Your task to perform on an android device: Check out the new nike air max 2020. Image 0: 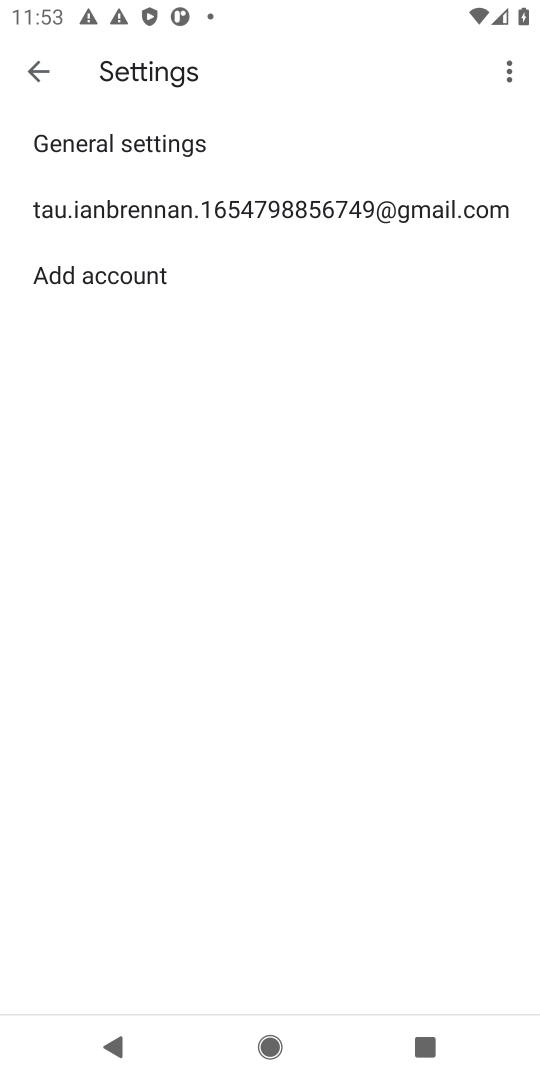
Step 0: press home button
Your task to perform on an android device: Check out the new nike air max 2020. Image 1: 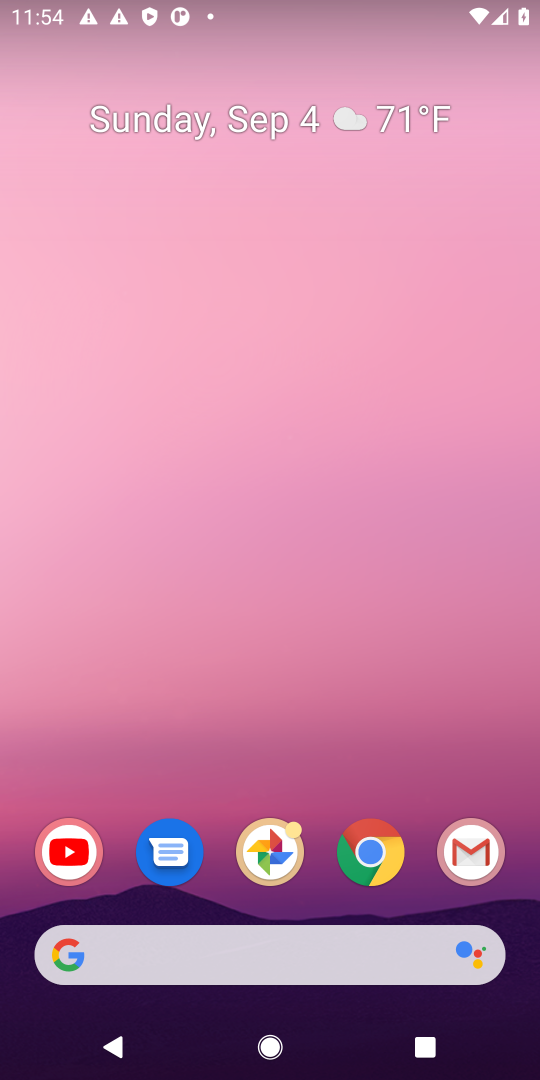
Step 1: click (359, 854)
Your task to perform on an android device: Check out the new nike air max 2020. Image 2: 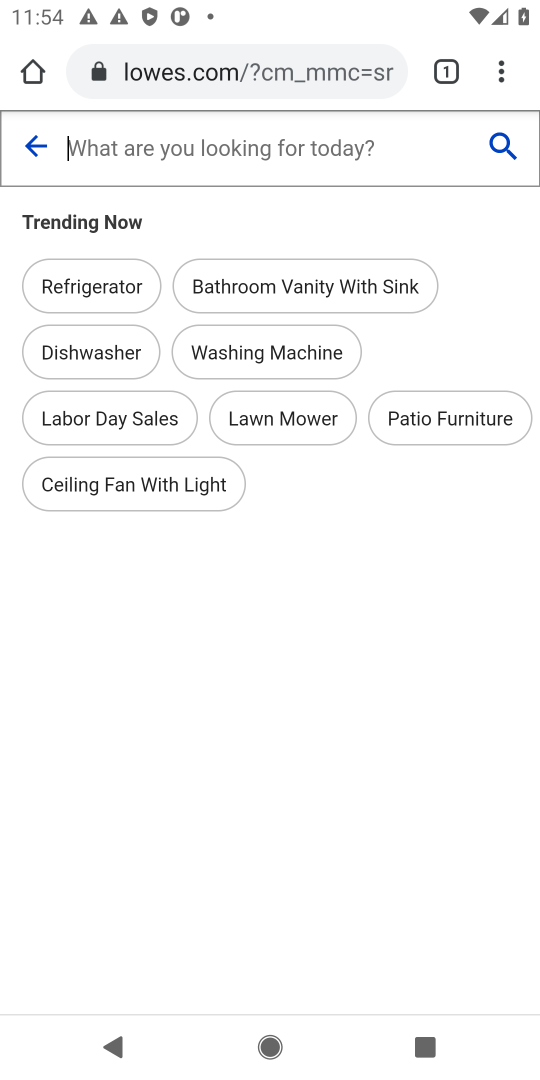
Step 2: click (294, 52)
Your task to perform on an android device: Check out the new nike air max 2020. Image 3: 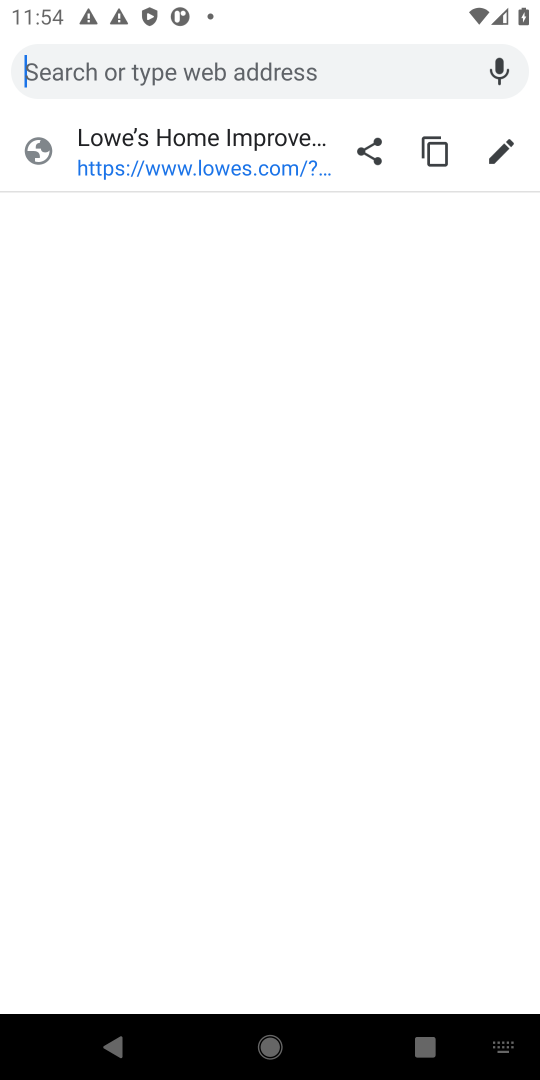
Step 3: type "nike air max 2020"
Your task to perform on an android device: Check out the new nike air max 2020. Image 4: 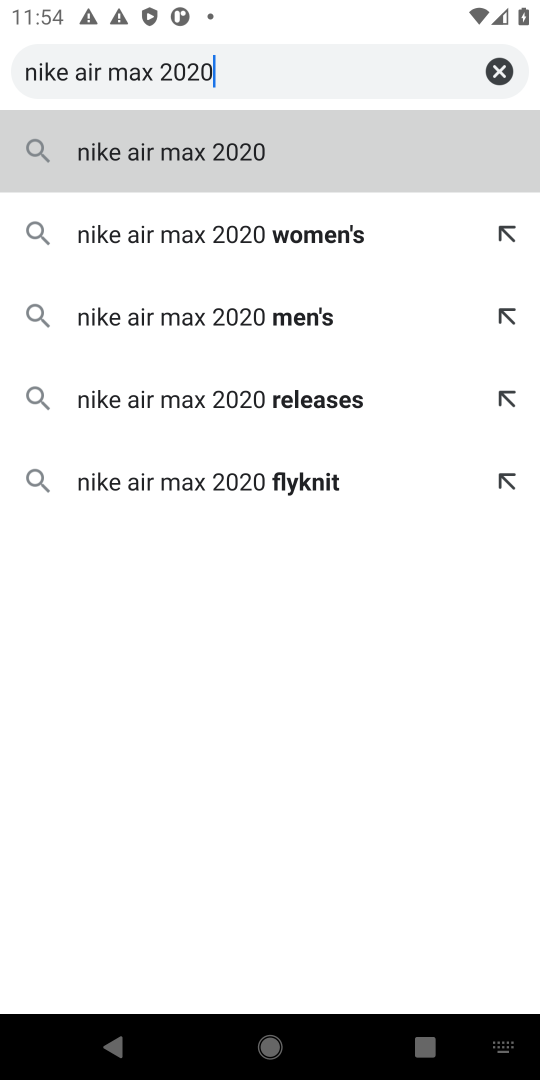
Step 4: click (155, 144)
Your task to perform on an android device: Check out the new nike air max 2020. Image 5: 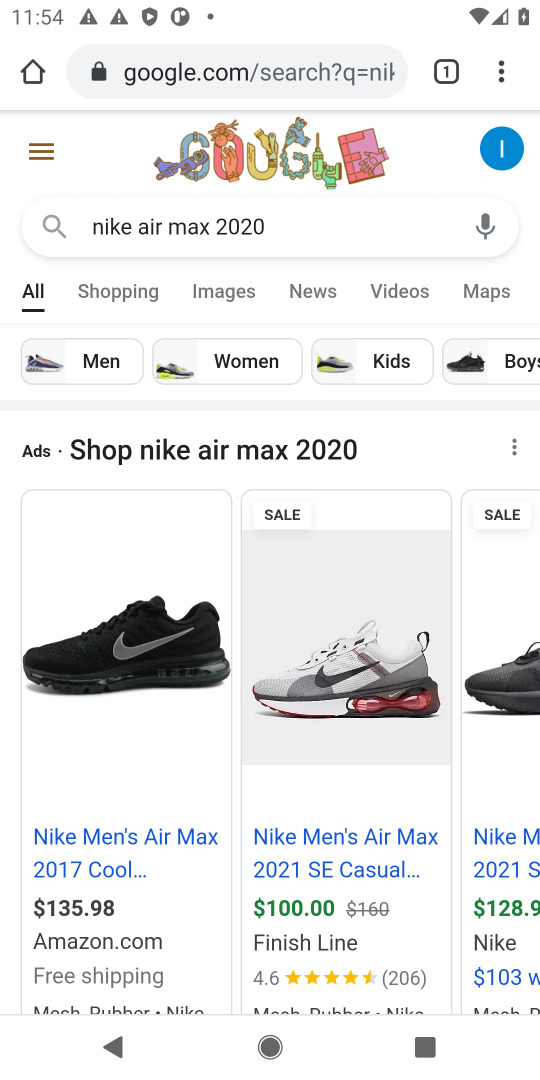
Step 5: task complete